Your task to perform on an android device: install app "Booking.com: Hotels and more" Image 0: 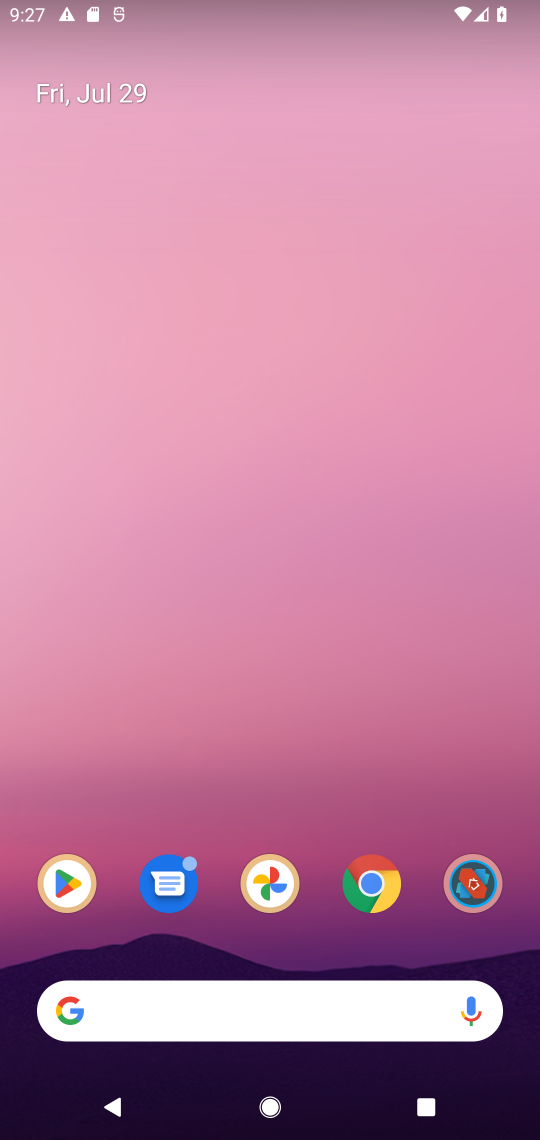
Step 0: click (68, 918)
Your task to perform on an android device: install app "Booking.com: Hotels and more" Image 1: 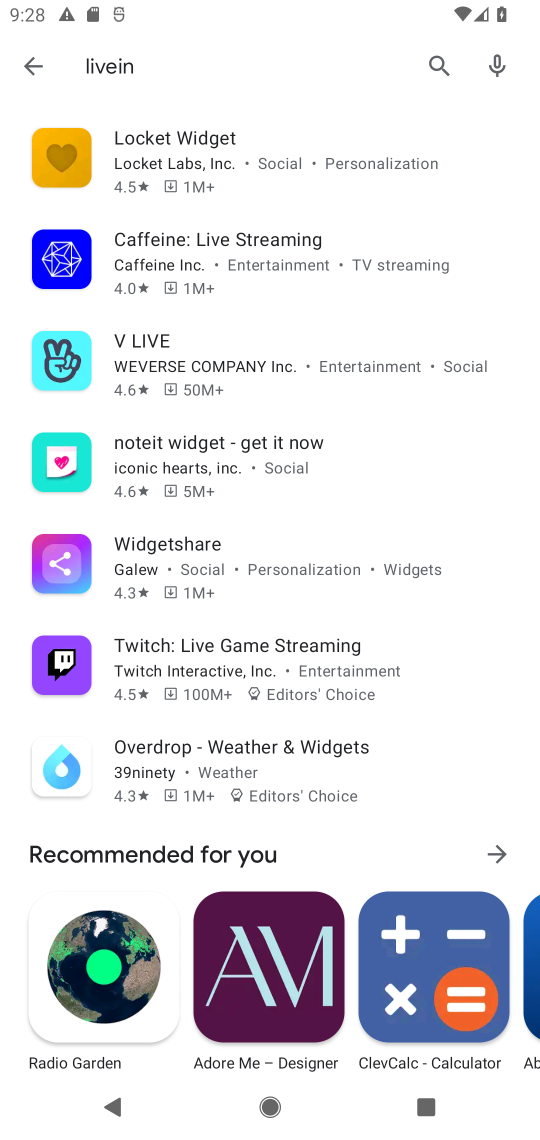
Step 1: click (174, 66)
Your task to perform on an android device: install app "Booking.com: Hotels and more" Image 2: 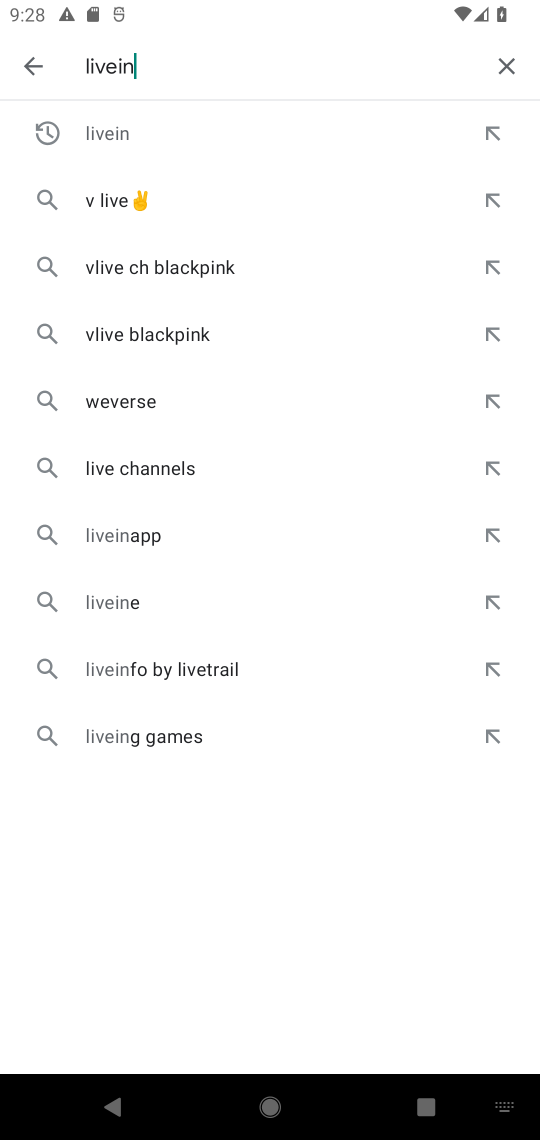
Step 2: click (500, 47)
Your task to perform on an android device: install app "Booking.com: Hotels and more" Image 3: 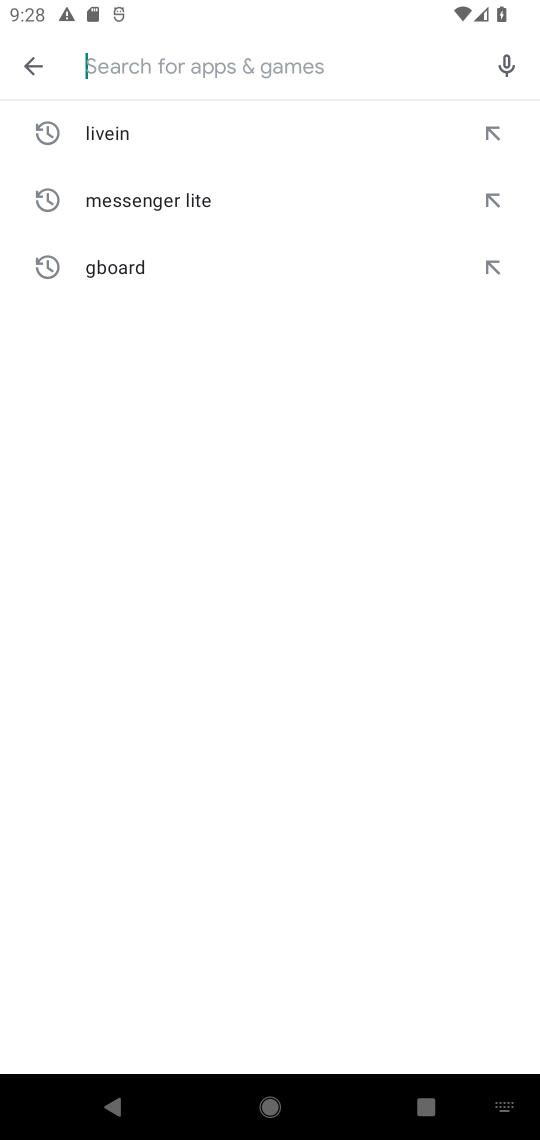
Step 3: type "Booking.com"
Your task to perform on an android device: install app "Booking.com: Hotels and more" Image 4: 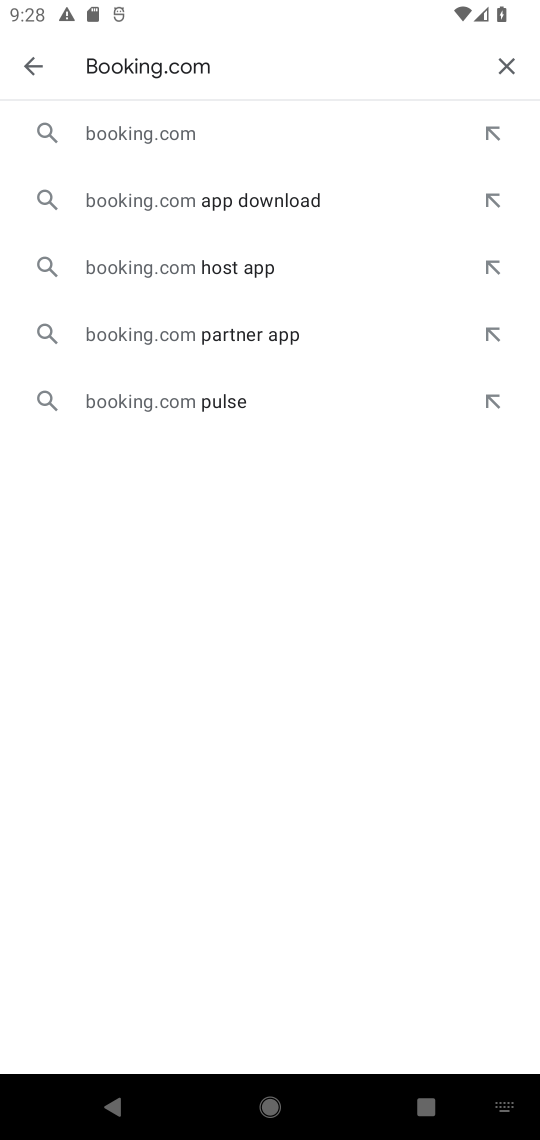
Step 4: click (170, 147)
Your task to perform on an android device: install app "Booking.com: Hotels and more" Image 5: 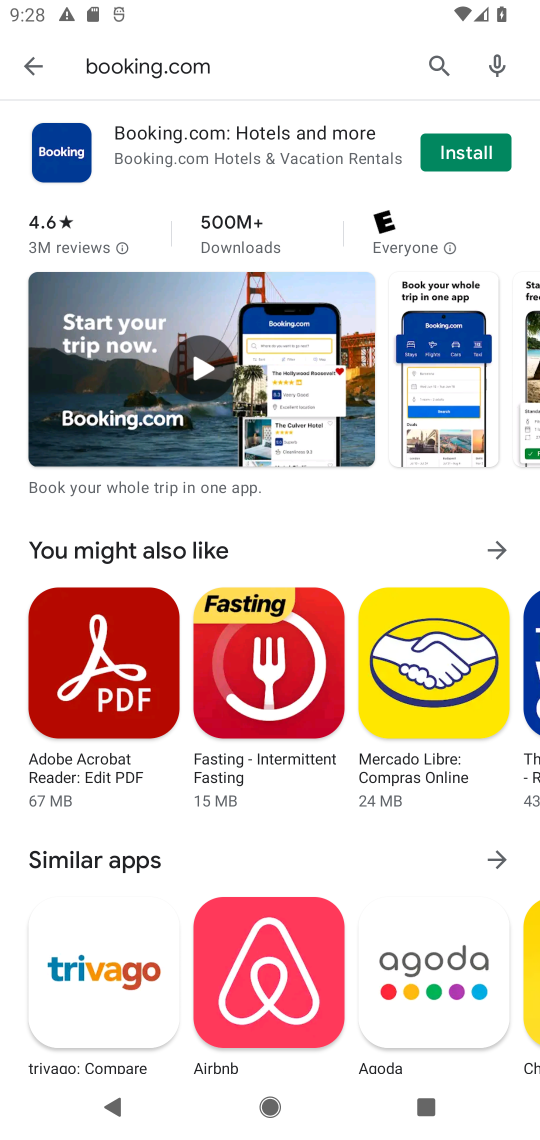
Step 5: click (462, 158)
Your task to perform on an android device: install app "Booking.com: Hotels and more" Image 6: 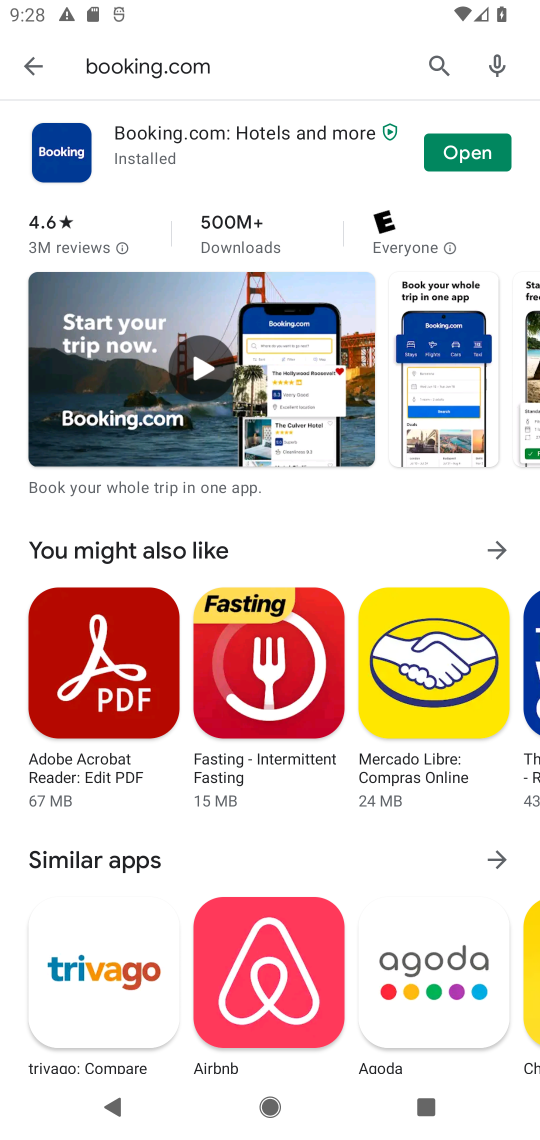
Step 6: task complete